Your task to perform on an android device: Search for Italian restaurants on Maps Image 0: 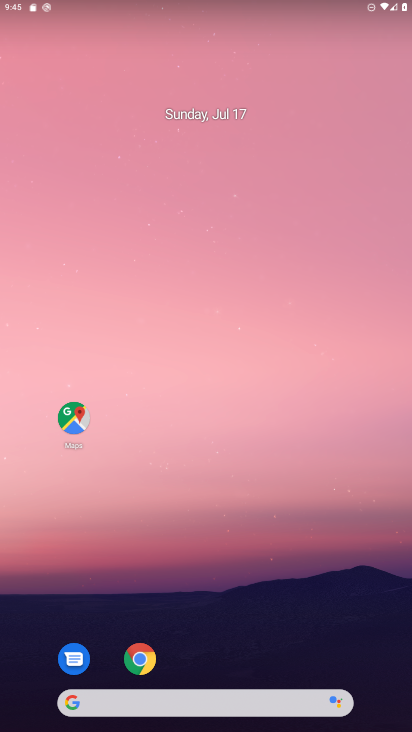
Step 0: click (62, 422)
Your task to perform on an android device: Search for Italian restaurants on Maps Image 1: 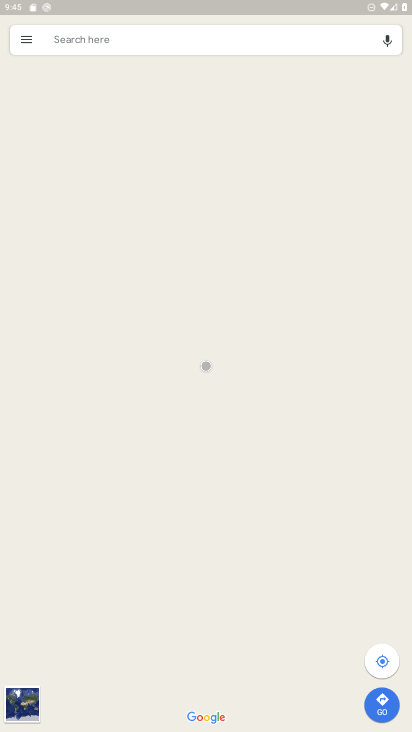
Step 1: click (106, 44)
Your task to perform on an android device: Search for Italian restaurants on Maps Image 2: 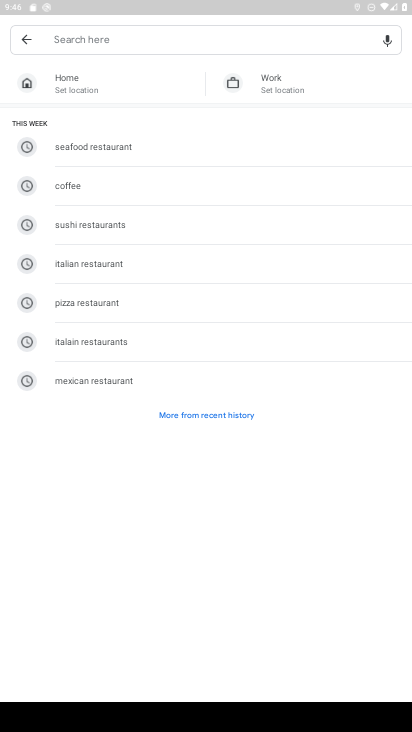
Step 2: type "italian restaurants"
Your task to perform on an android device: Search for Italian restaurants on Maps Image 3: 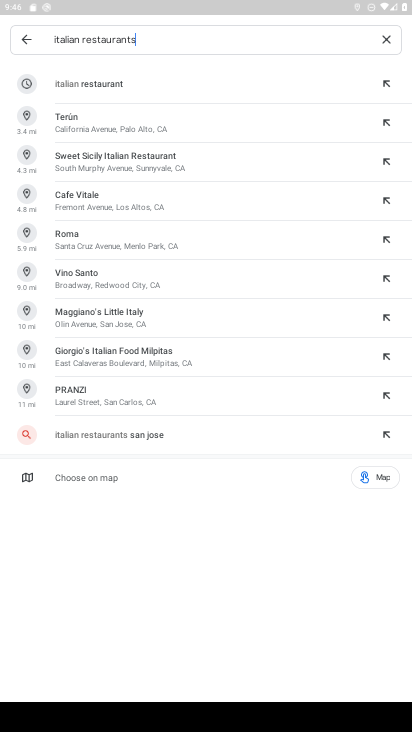
Step 3: click (46, 81)
Your task to perform on an android device: Search for Italian restaurants on Maps Image 4: 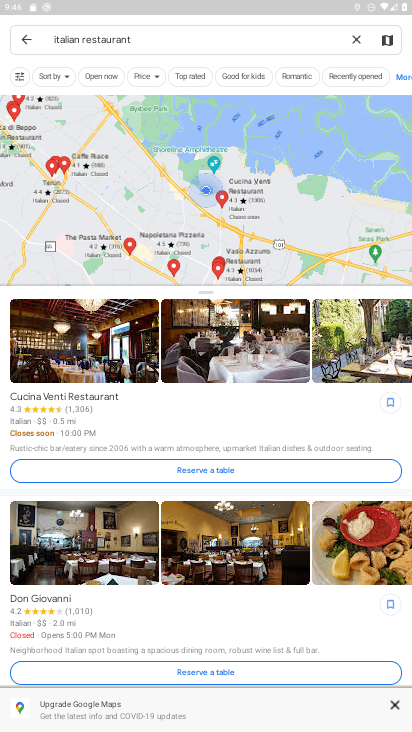
Step 4: task complete